Your task to perform on an android device: add a label to a message in the gmail app Image 0: 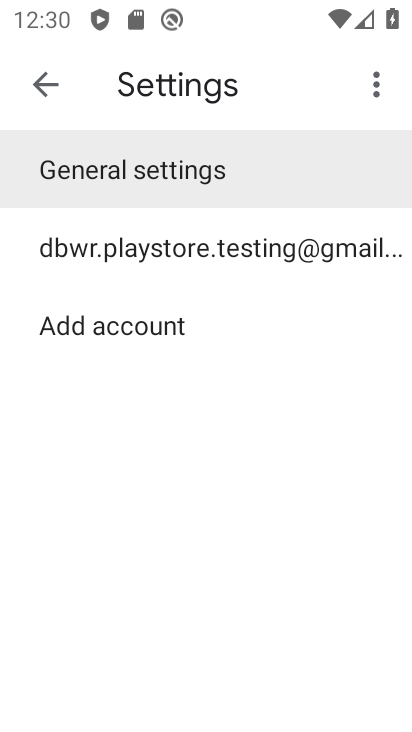
Step 0: press home button
Your task to perform on an android device: add a label to a message in the gmail app Image 1: 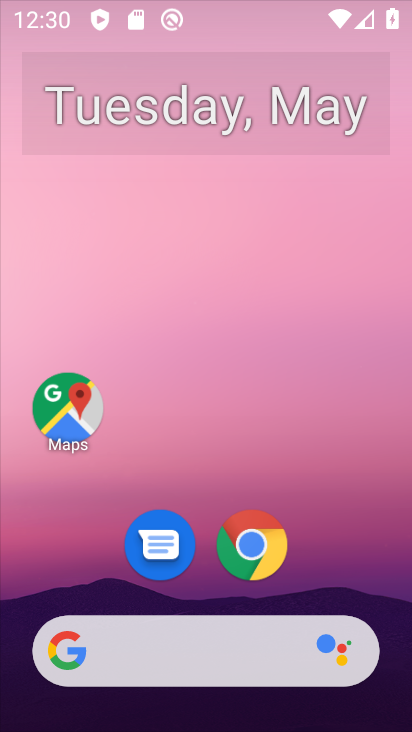
Step 1: drag from (375, 571) to (297, 107)
Your task to perform on an android device: add a label to a message in the gmail app Image 2: 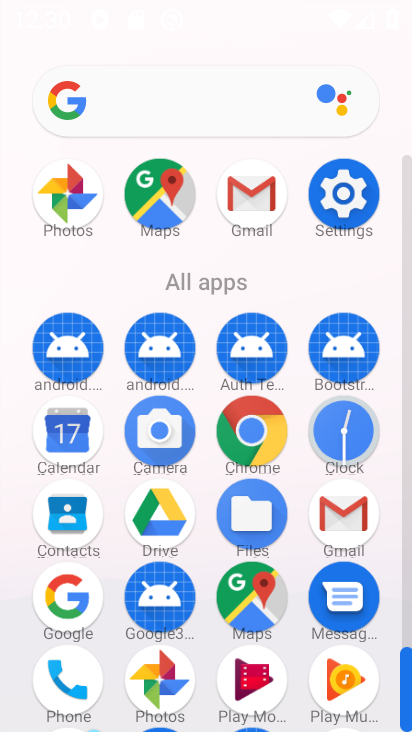
Step 2: click (301, 507)
Your task to perform on an android device: add a label to a message in the gmail app Image 3: 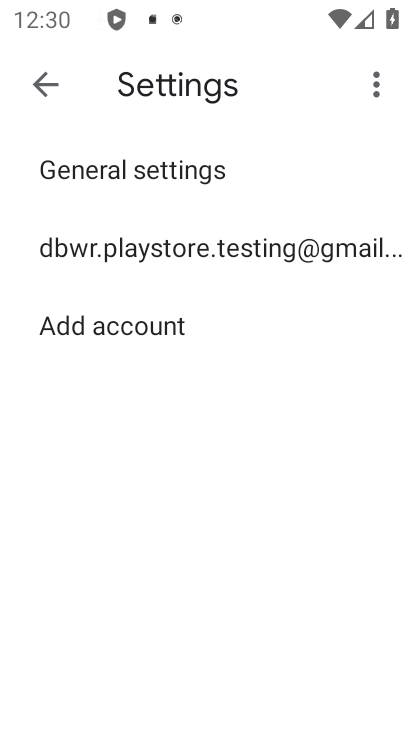
Step 3: click (215, 239)
Your task to perform on an android device: add a label to a message in the gmail app Image 4: 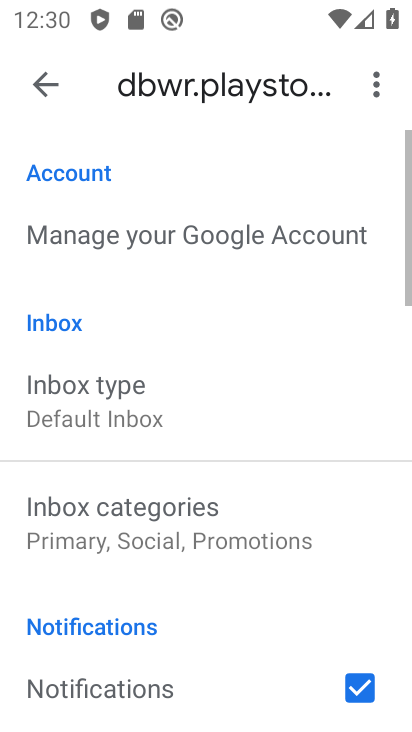
Step 4: click (40, 85)
Your task to perform on an android device: add a label to a message in the gmail app Image 5: 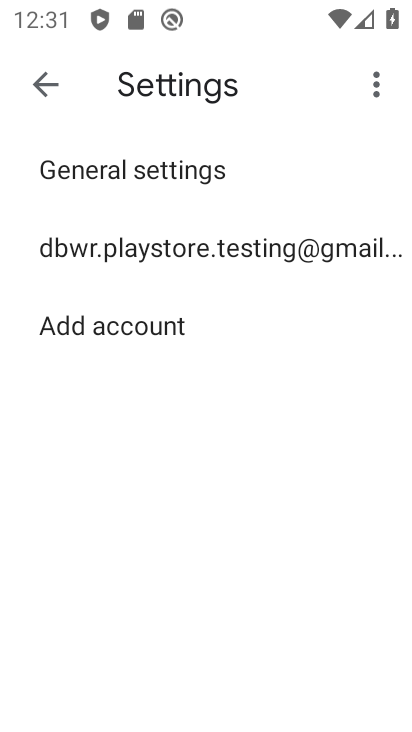
Step 5: click (40, 85)
Your task to perform on an android device: add a label to a message in the gmail app Image 6: 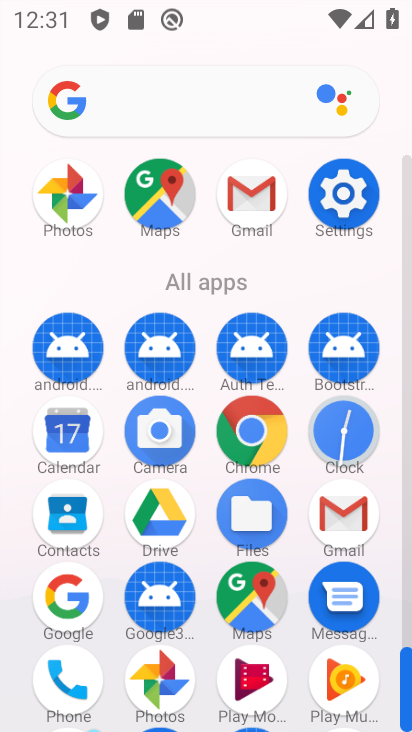
Step 6: click (375, 512)
Your task to perform on an android device: add a label to a message in the gmail app Image 7: 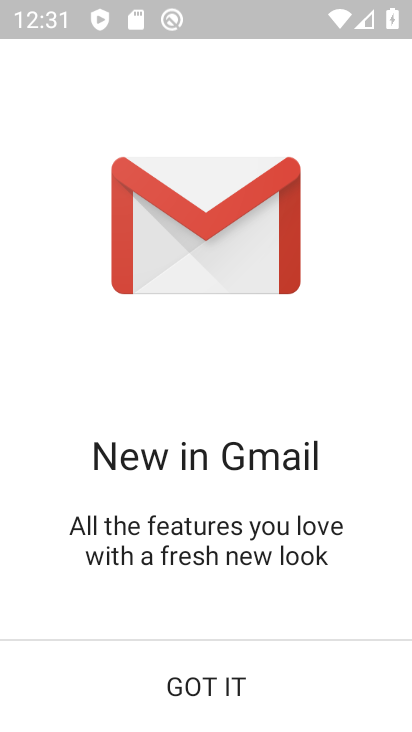
Step 7: click (219, 705)
Your task to perform on an android device: add a label to a message in the gmail app Image 8: 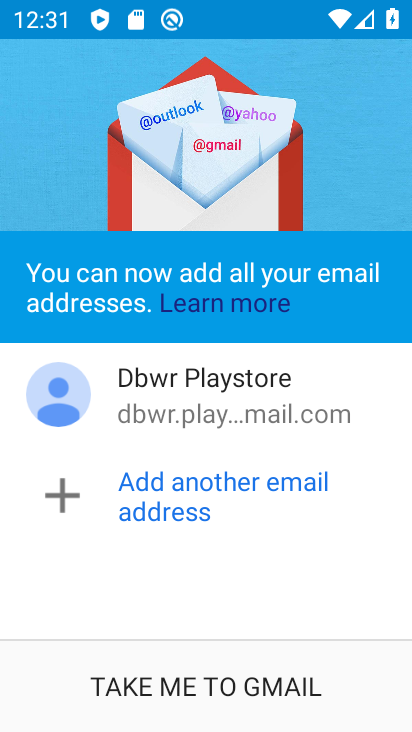
Step 8: click (284, 672)
Your task to perform on an android device: add a label to a message in the gmail app Image 9: 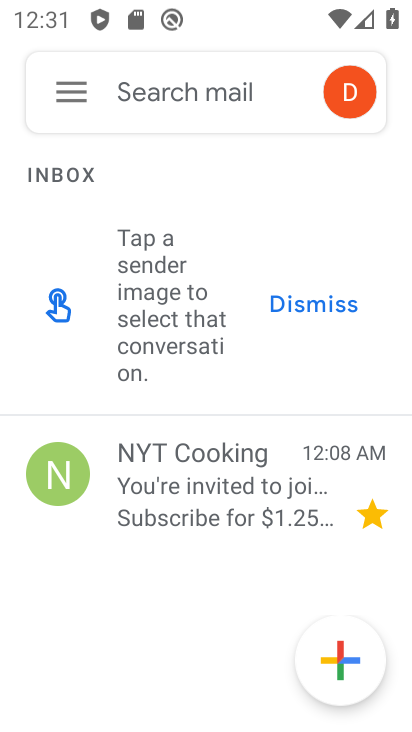
Step 9: click (78, 101)
Your task to perform on an android device: add a label to a message in the gmail app Image 10: 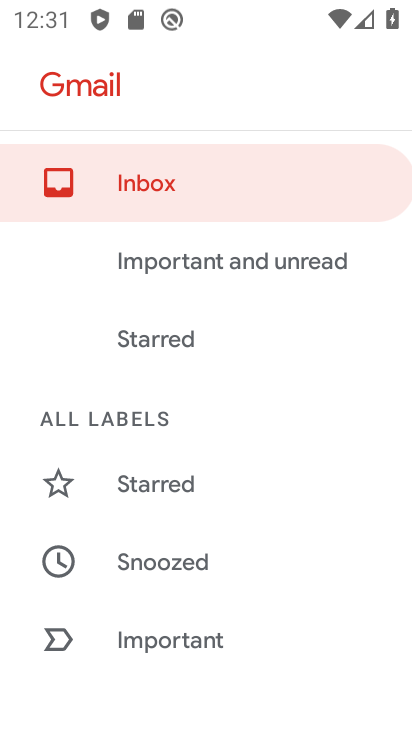
Step 10: task complete